Your task to perform on an android device: toggle wifi Image 0: 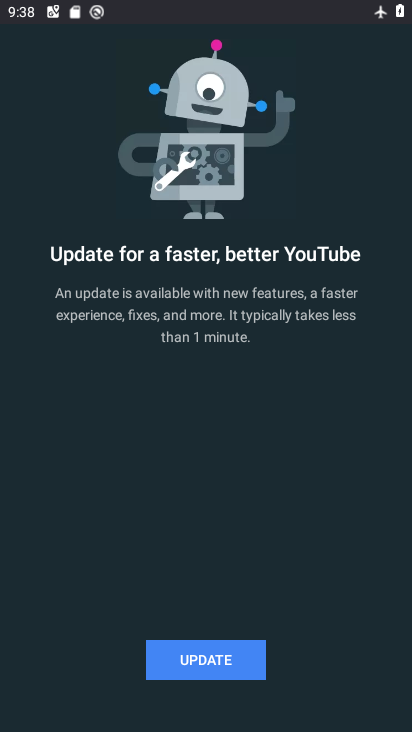
Step 0: press home button
Your task to perform on an android device: toggle wifi Image 1: 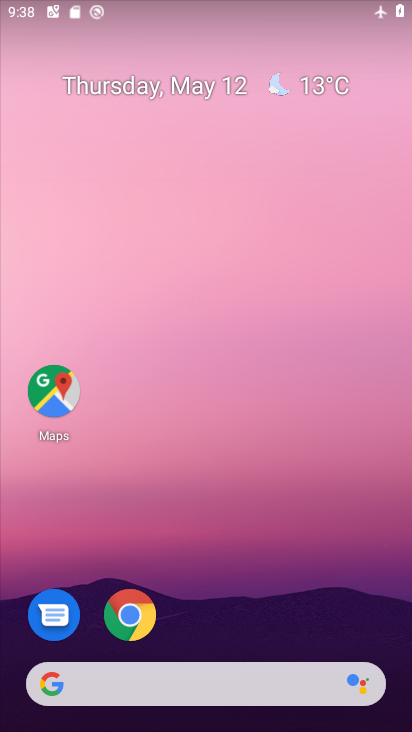
Step 1: drag from (285, 519) to (166, 14)
Your task to perform on an android device: toggle wifi Image 2: 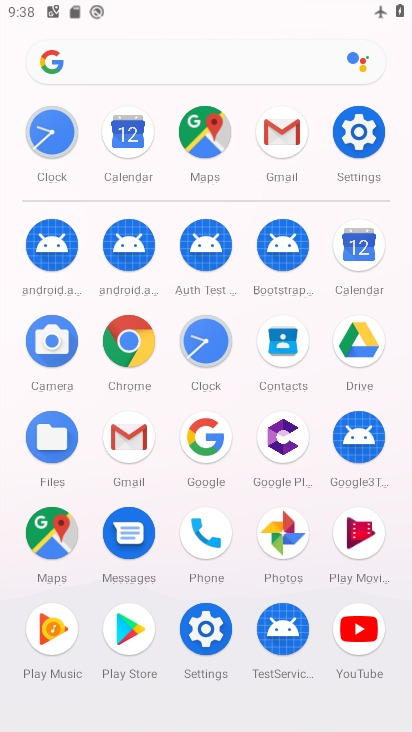
Step 2: click (361, 130)
Your task to perform on an android device: toggle wifi Image 3: 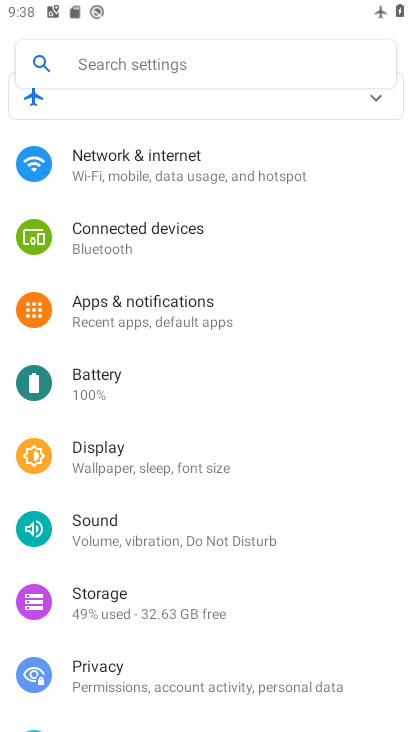
Step 3: click (148, 157)
Your task to perform on an android device: toggle wifi Image 4: 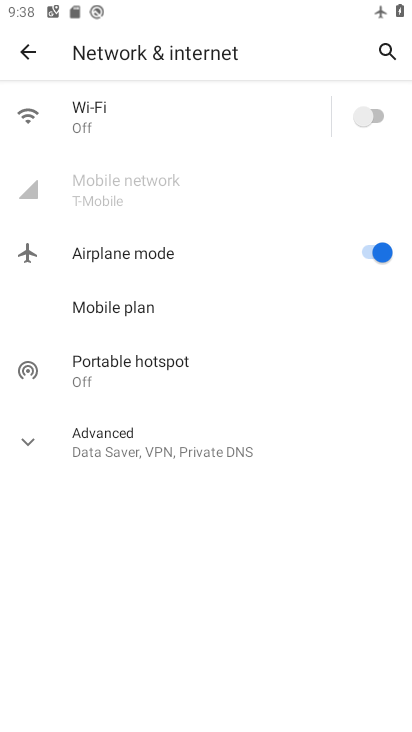
Step 4: click (371, 114)
Your task to perform on an android device: toggle wifi Image 5: 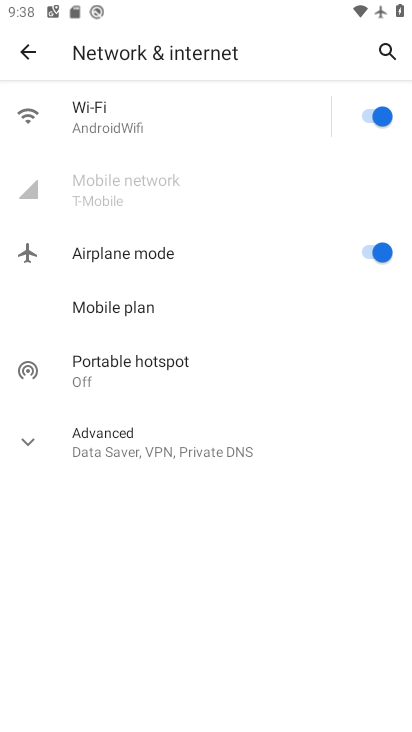
Step 5: task complete